Your task to perform on an android device: toggle notification dots Image 0: 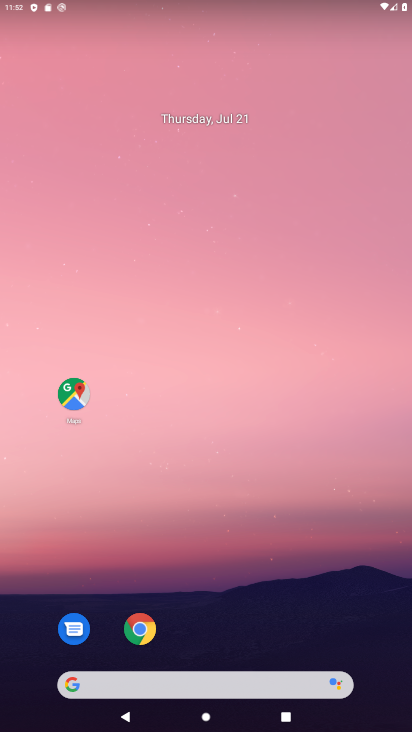
Step 0: drag from (173, 639) to (182, 61)
Your task to perform on an android device: toggle notification dots Image 1: 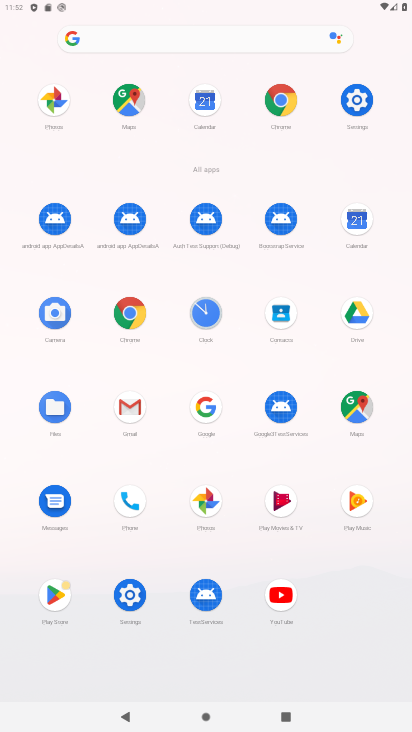
Step 1: click (345, 102)
Your task to perform on an android device: toggle notification dots Image 2: 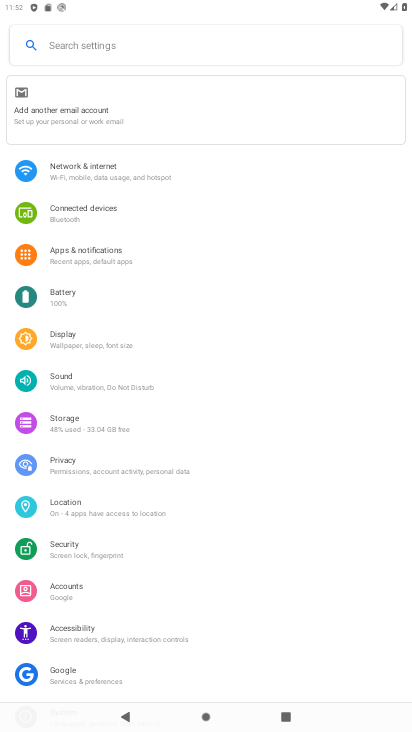
Step 2: click (103, 249)
Your task to perform on an android device: toggle notification dots Image 3: 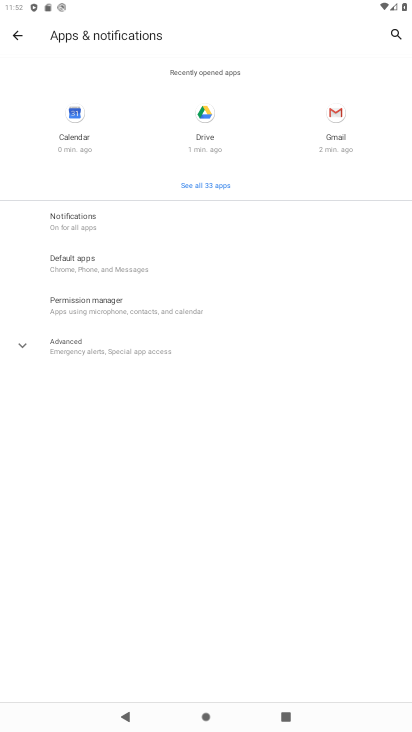
Step 3: click (92, 214)
Your task to perform on an android device: toggle notification dots Image 4: 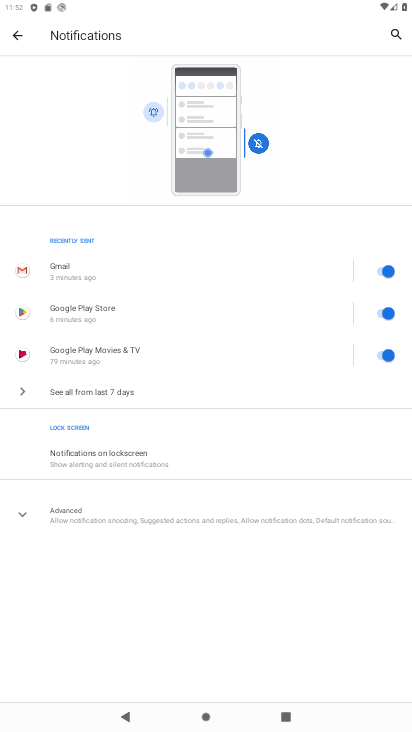
Step 4: click (99, 510)
Your task to perform on an android device: toggle notification dots Image 5: 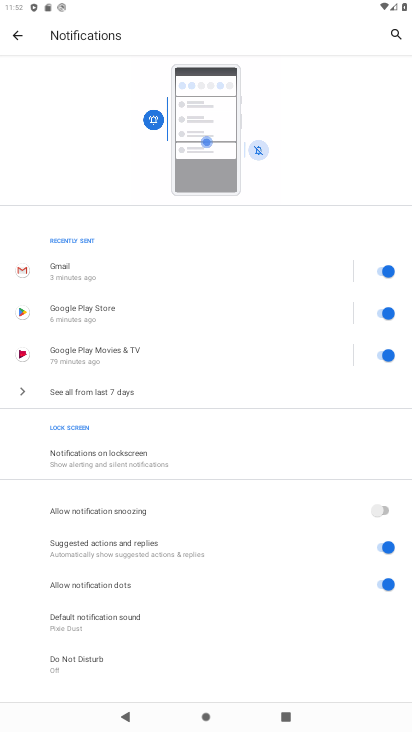
Step 5: click (380, 584)
Your task to perform on an android device: toggle notification dots Image 6: 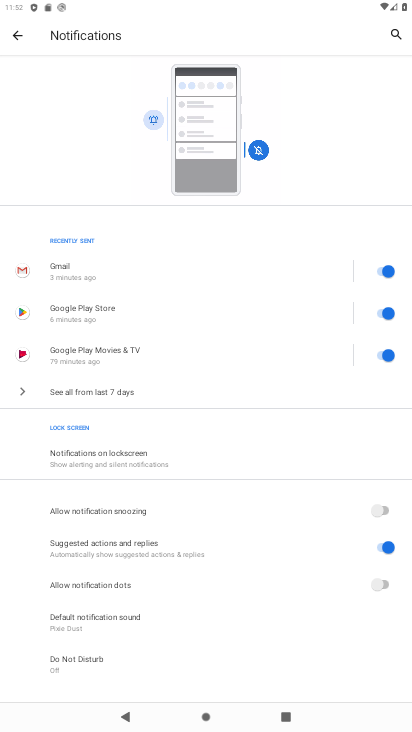
Step 6: task complete